Your task to perform on an android device: change the clock display to digital Image 0: 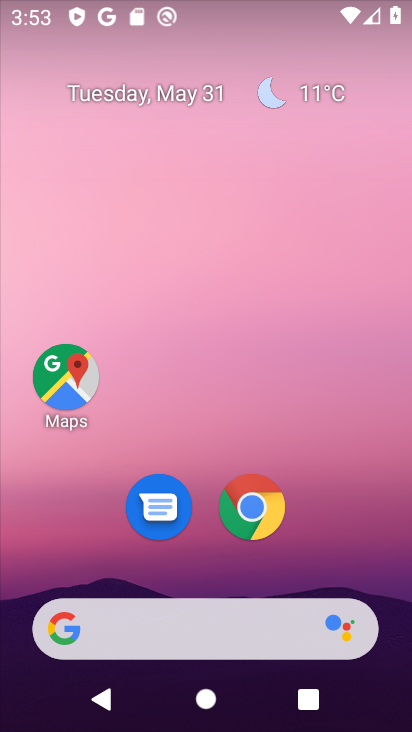
Step 0: drag from (202, 560) to (199, 133)
Your task to perform on an android device: change the clock display to digital Image 1: 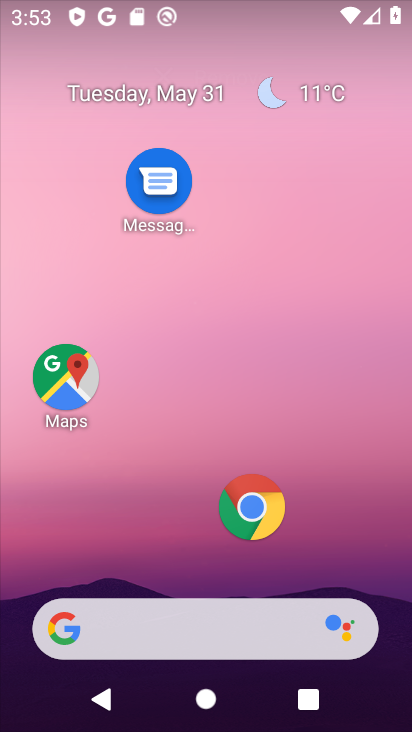
Step 1: click (333, 504)
Your task to perform on an android device: change the clock display to digital Image 2: 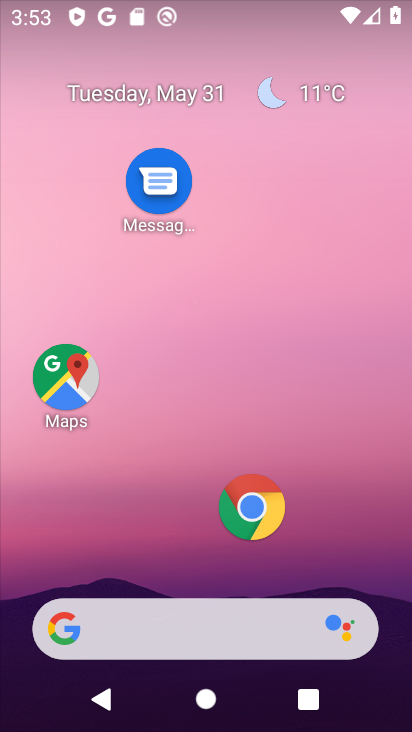
Step 2: drag from (326, 587) to (257, 240)
Your task to perform on an android device: change the clock display to digital Image 3: 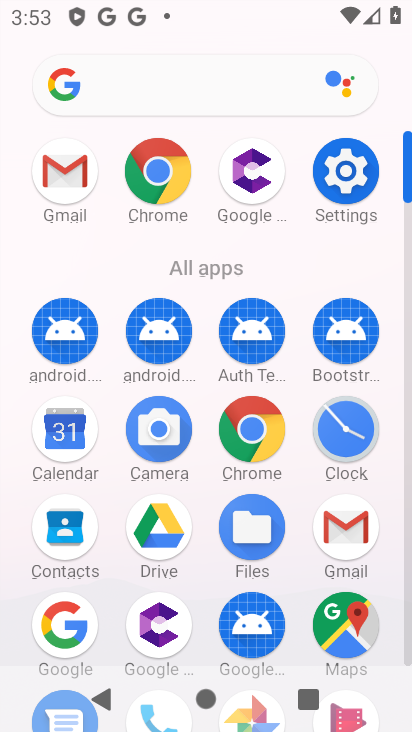
Step 3: click (347, 429)
Your task to perform on an android device: change the clock display to digital Image 4: 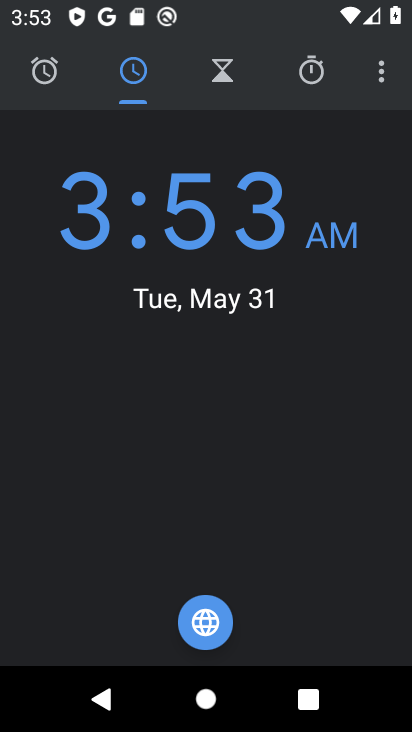
Step 4: click (376, 68)
Your task to perform on an android device: change the clock display to digital Image 5: 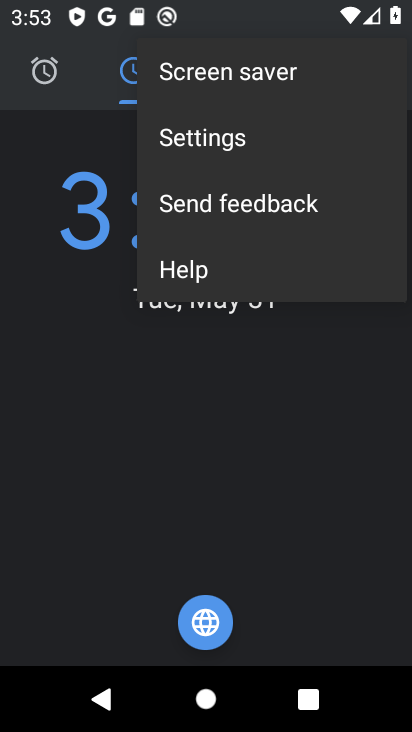
Step 5: click (263, 145)
Your task to perform on an android device: change the clock display to digital Image 6: 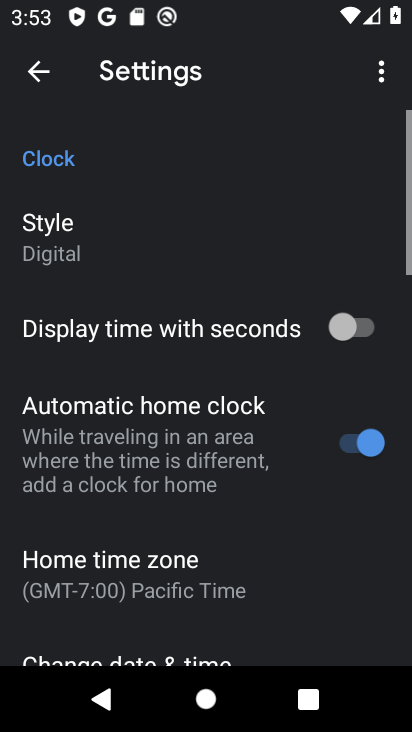
Step 6: click (130, 242)
Your task to perform on an android device: change the clock display to digital Image 7: 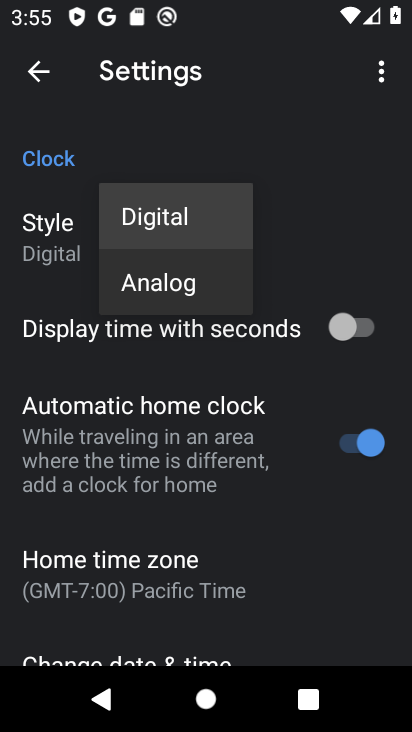
Step 7: task complete